Your task to perform on an android device: Open calendar and show me the second week of next month Image 0: 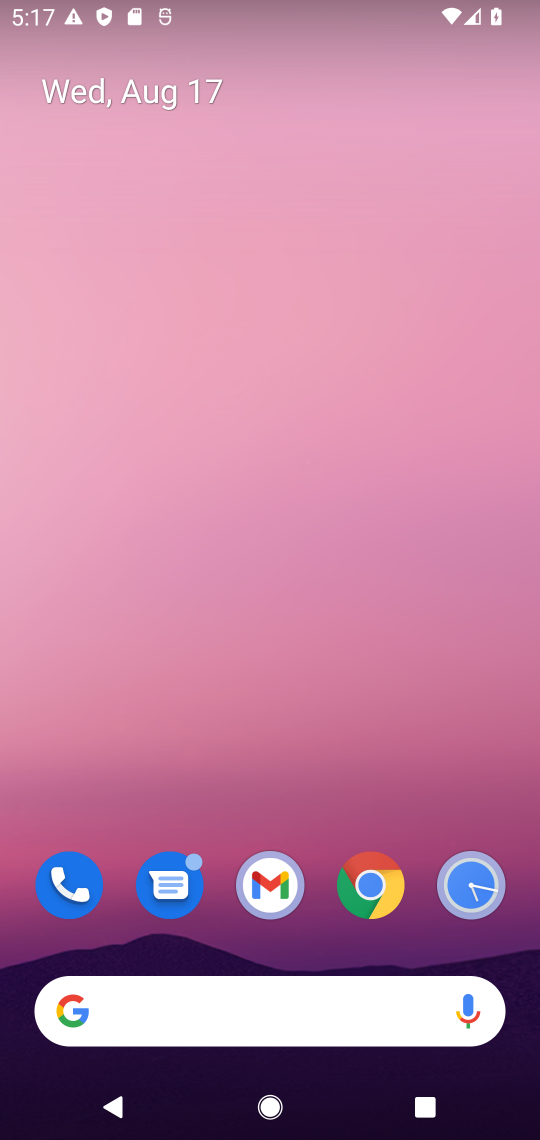
Step 0: drag from (365, 769) to (263, 85)
Your task to perform on an android device: Open calendar and show me the second week of next month Image 1: 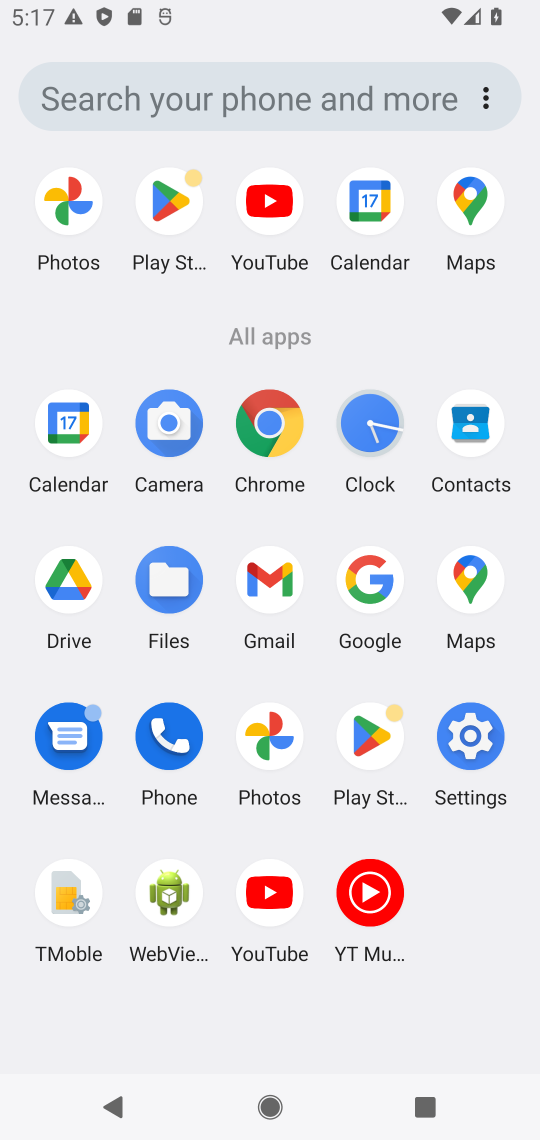
Step 1: press home button
Your task to perform on an android device: Open calendar and show me the second week of next month Image 2: 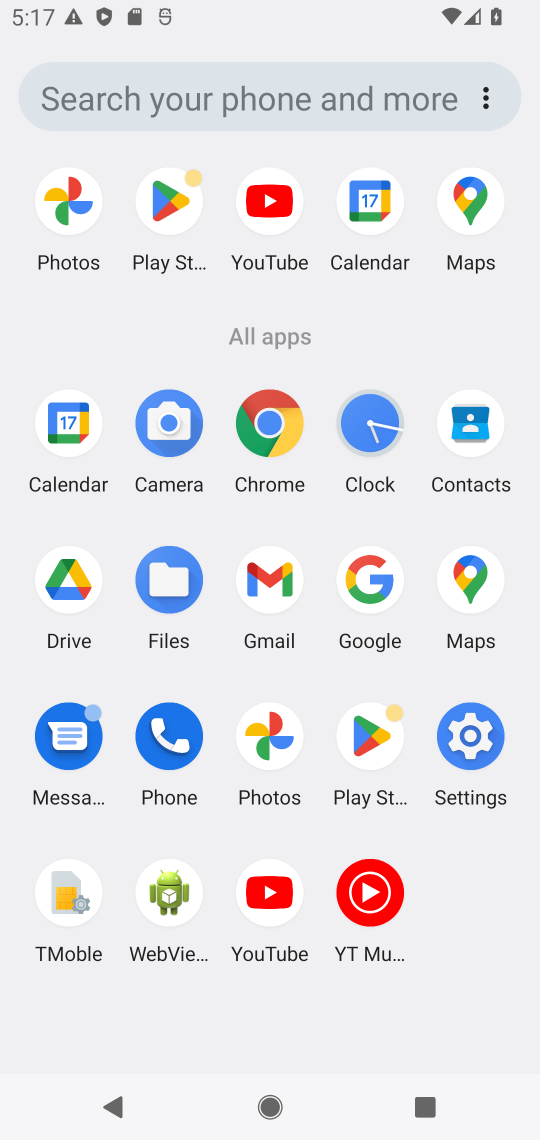
Step 2: press home button
Your task to perform on an android device: Open calendar and show me the second week of next month Image 3: 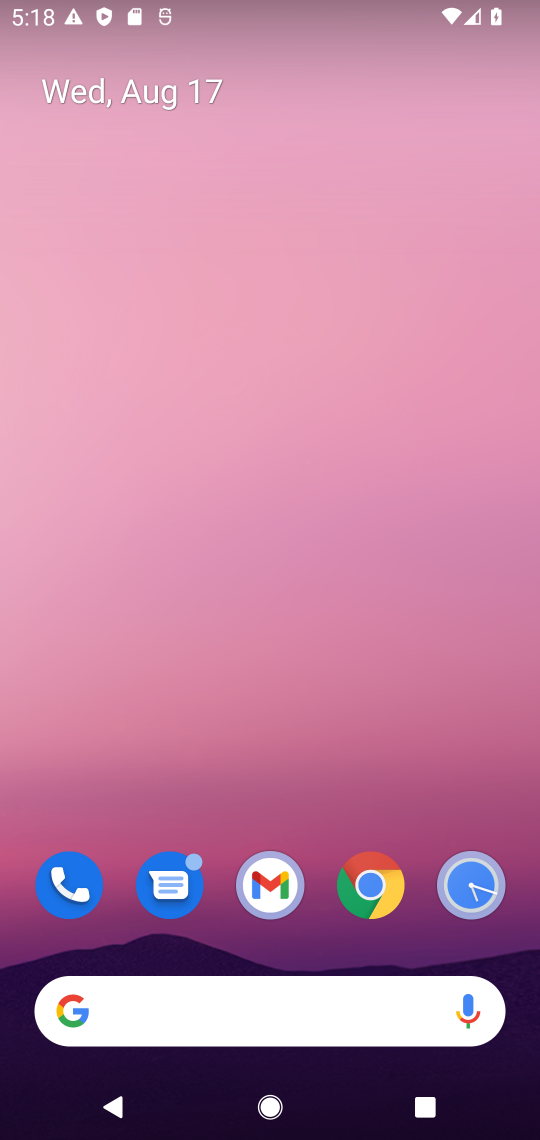
Step 3: click (177, 100)
Your task to perform on an android device: Open calendar and show me the second week of next month Image 4: 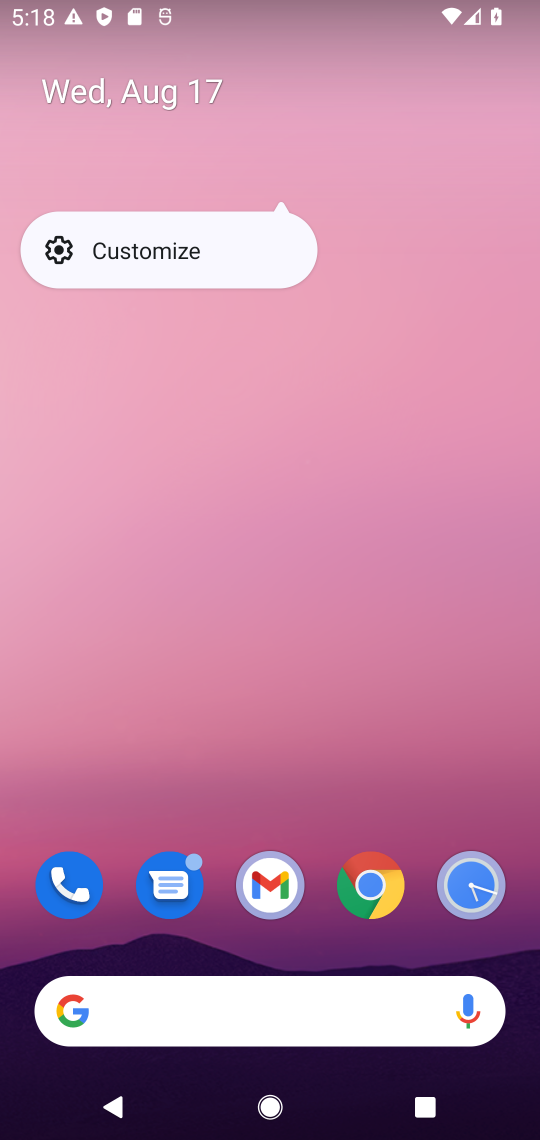
Step 4: click (164, 97)
Your task to perform on an android device: Open calendar and show me the second week of next month Image 5: 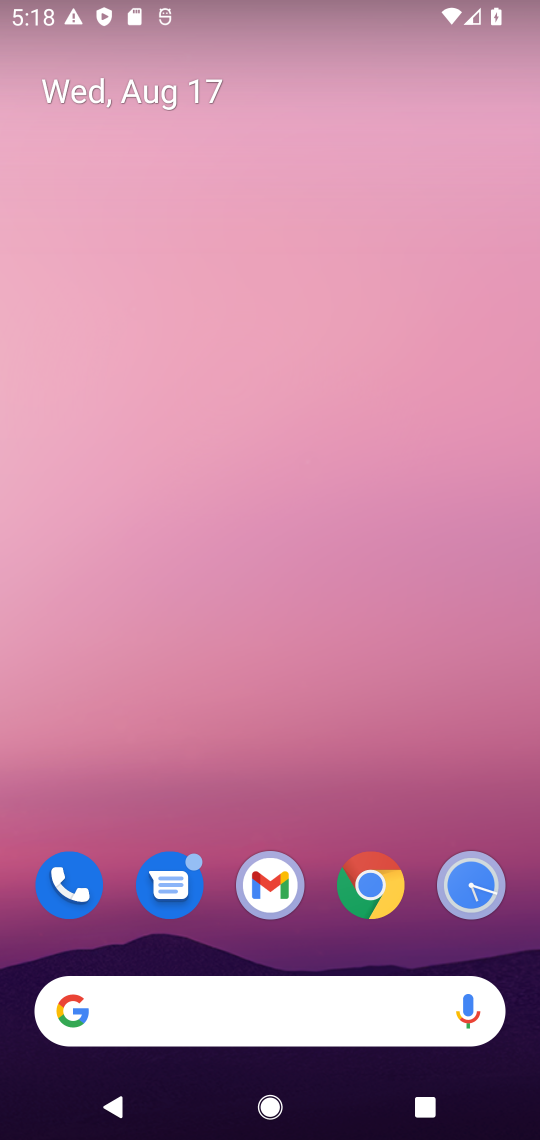
Step 5: click (173, 99)
Your task to perform on an android device: Open calendar and show me the second week of next month Image 6: 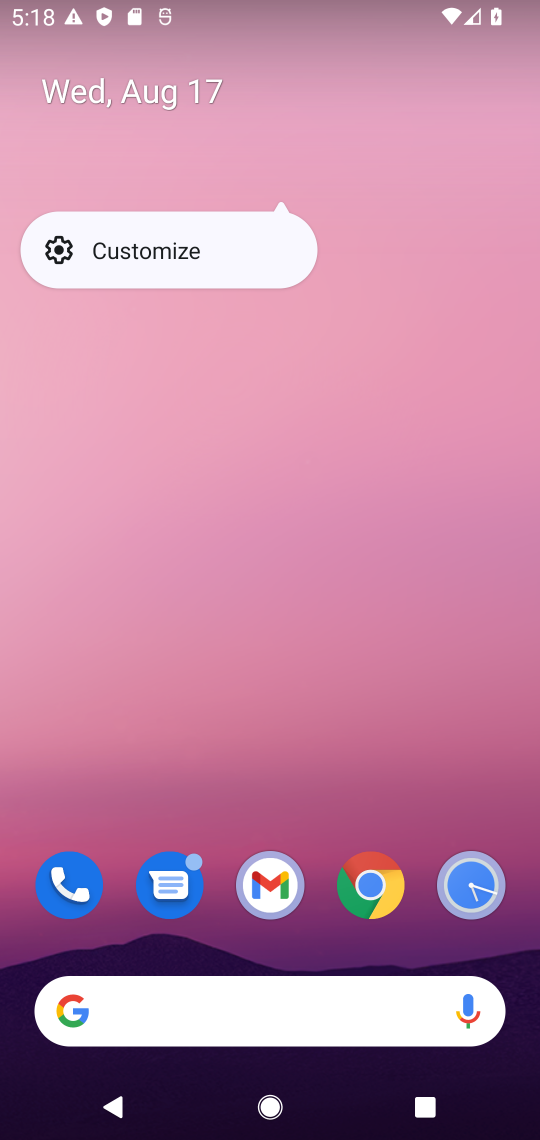
Step 6: click (159, 103)
Your task to perform on an android device: Open calendar and show me the second week of next month Image 7: 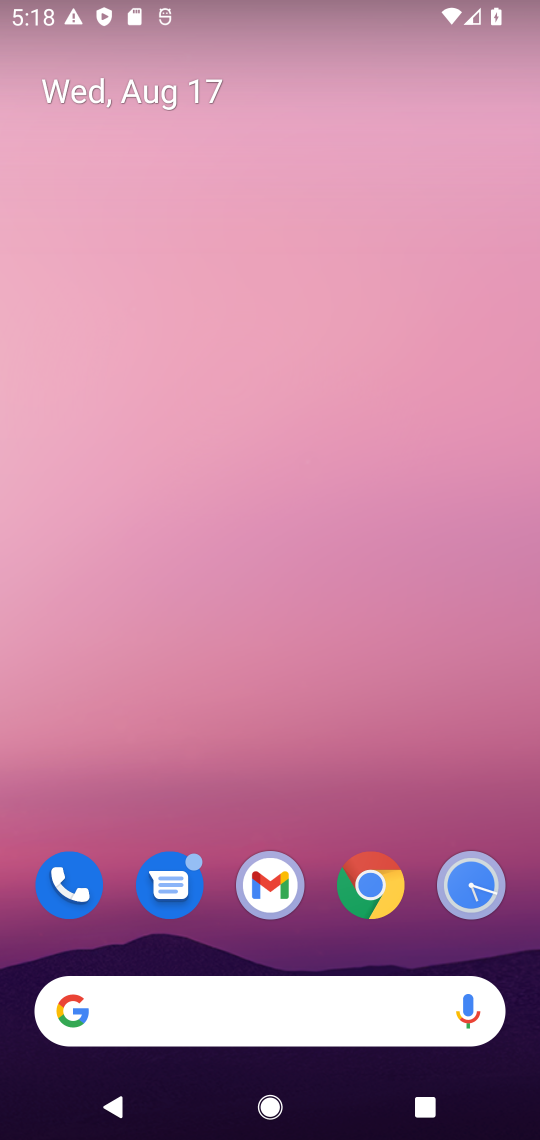
Step 7: drag from (273, 758) to (254, 68)
Your task to perform on an android device: Open calendar and show me the second week of next month Image 8: 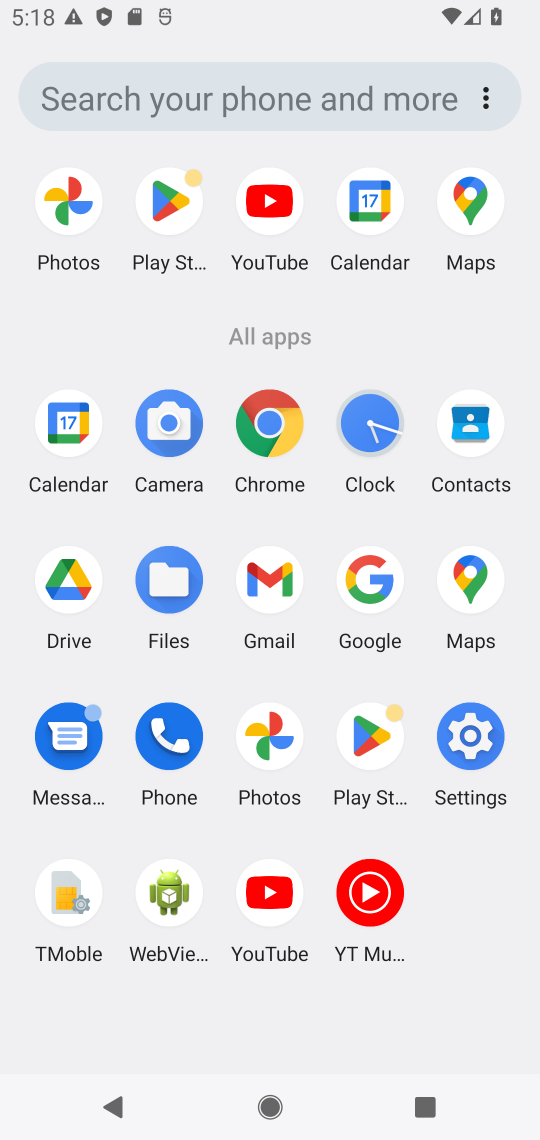
Step 8: click (385, 206)
Your task to perform on an android device: Open calendar and show me the second week of next month Image 9: 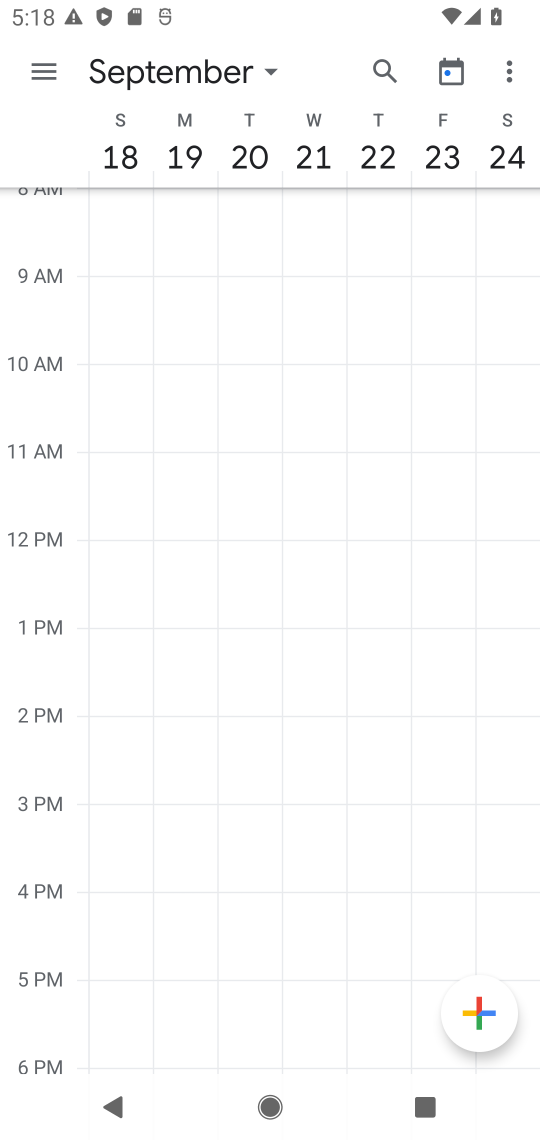
Step 9: click (247, 86)
Your task to perform on an android device: Open calendar and show me the second week of next month Image 10: 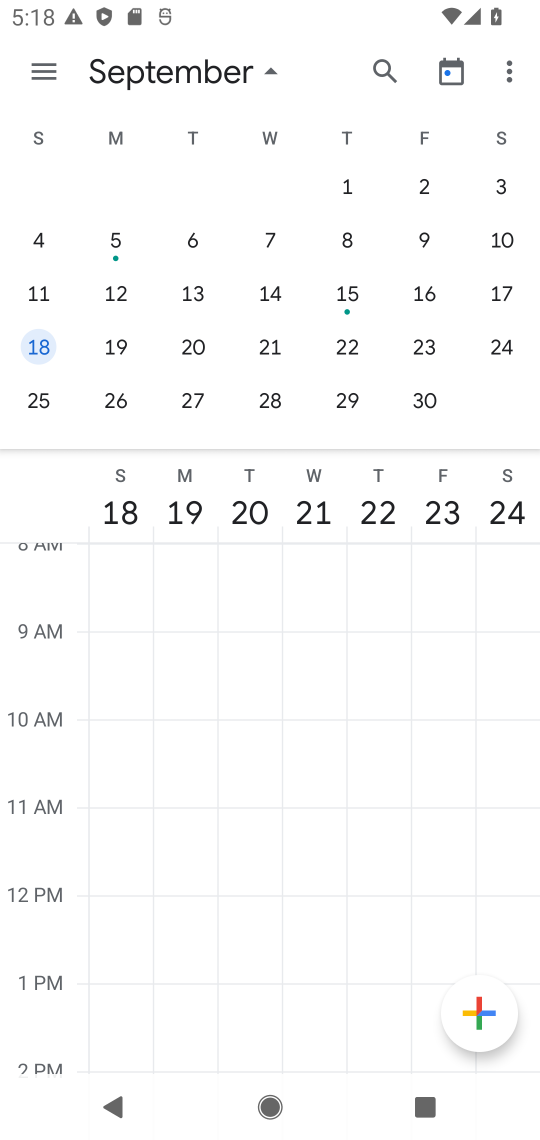
Step 10: click (168, 288)
Your task to perform on an android device: Open calendar and show me the second week of next month Image 11: 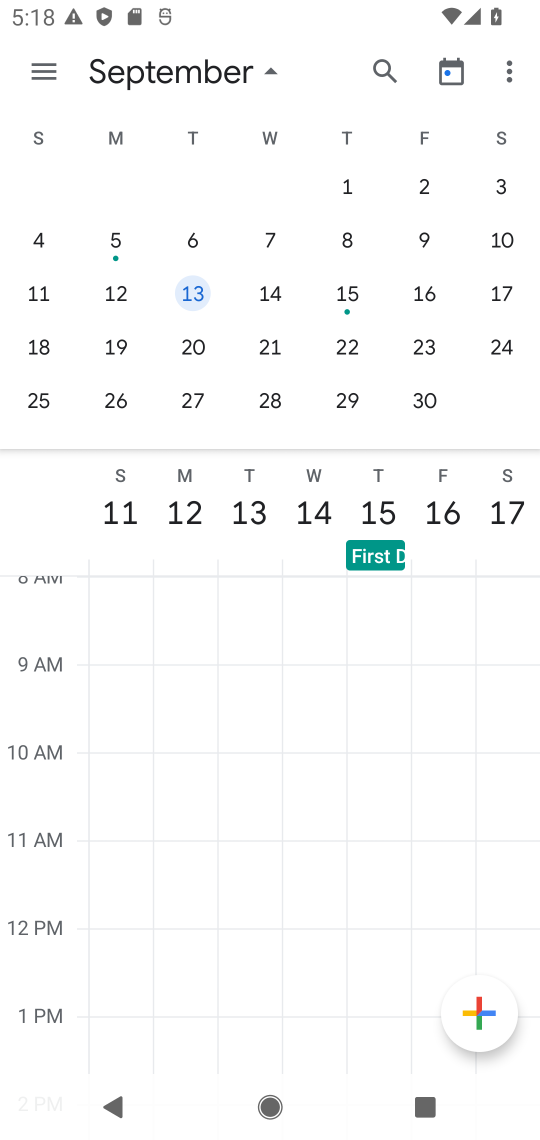
Step 11: task complete